Your task to perform on an android device: What's the news in Indonesia? Image 0: 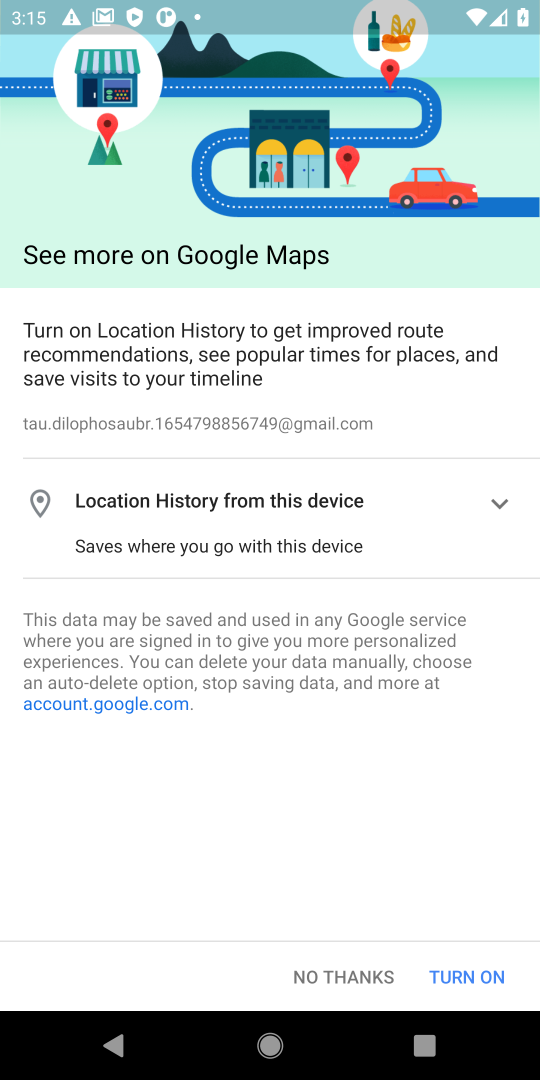
Step 0: press home button
Your task to perform on an android device: What's the news in Indonesia? Image 1: 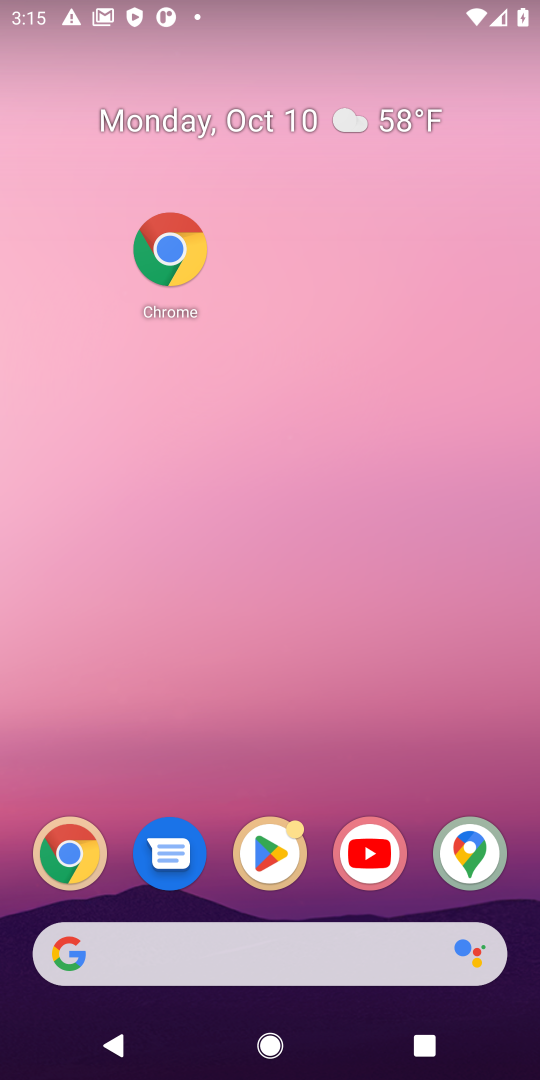
Step 1: click (164, 252)
Your task to perform on an android device: What's the news in Indonesia? Image 2: 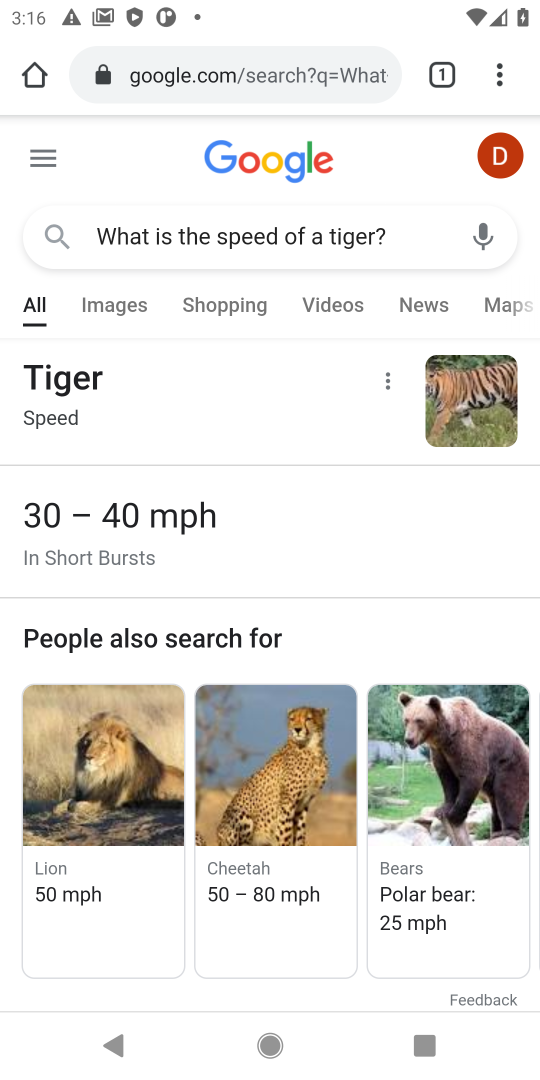
Step 2: click (279, 78)
Your task to perform on an android device: What's the news in Indonesia? Image 3: 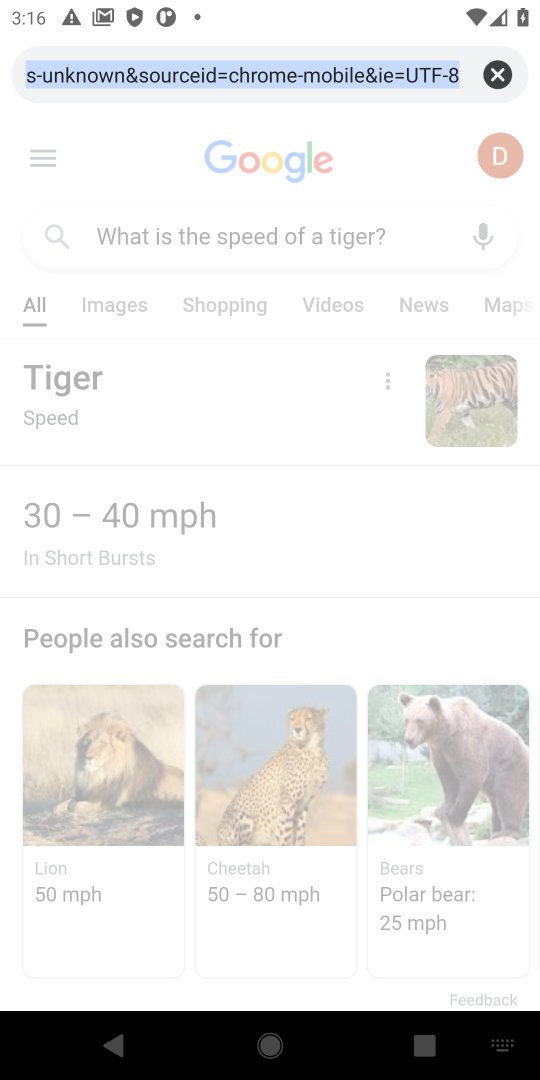
Step 3: type "What's the news in Indonesia?"
Your task to perform on an android device: What's the news in Indonesia? Image 4: 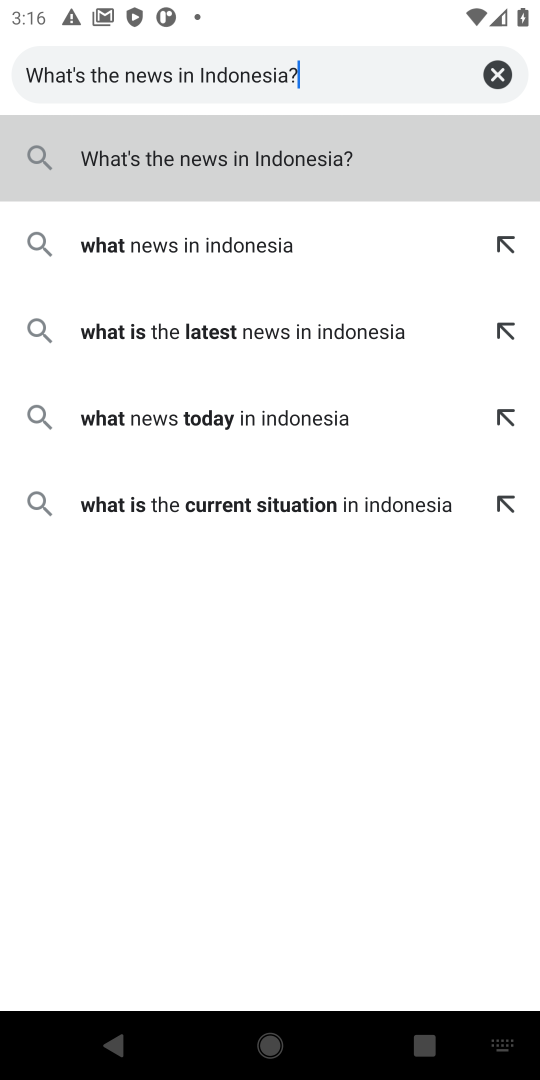
Step 4: click (389, 66)
Your task to perform on an android device: What's the news in Indonesia? Image 5: 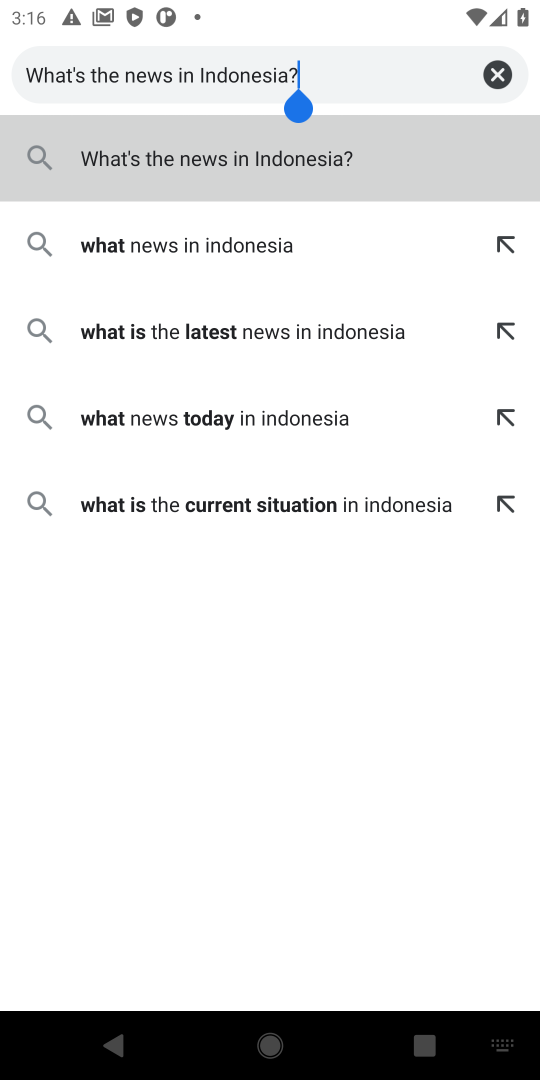
Step 5: click (326, 151)
Your task to perform on an android device: What's the news in Indonesia? Image 6: 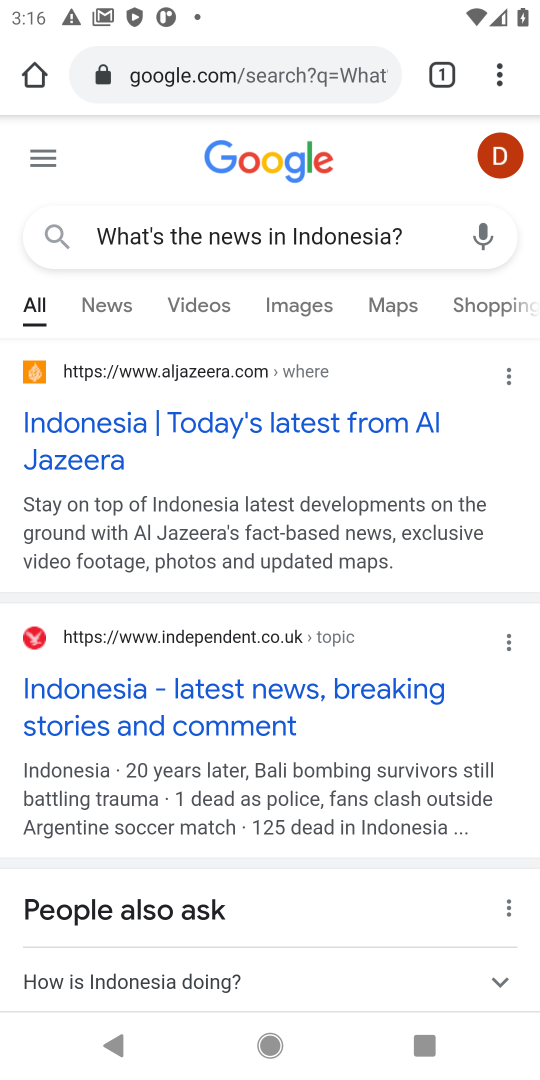
Step 6: click (271, 465)
Your task to perform on an android device: What's the news in Indonesia? Image 7: 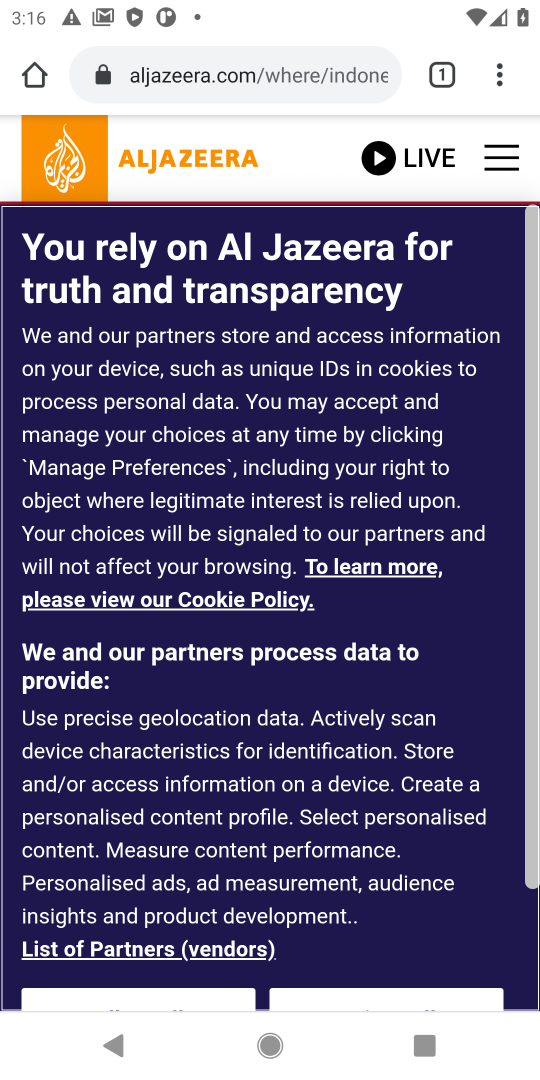
Step 7: click (291, 526)
Your task to perform on an android device: What's the news in Indonesia? Image 8: 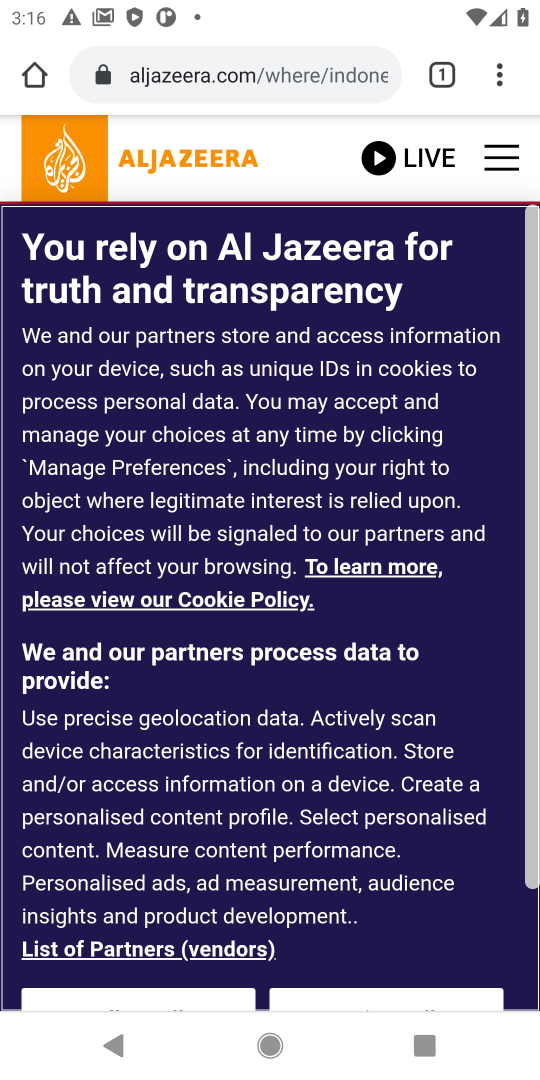
Step 8: drag from (287, 980) to (339, 583)
Your task to perform on an android device: What's the news in Indonesia? Image 9: 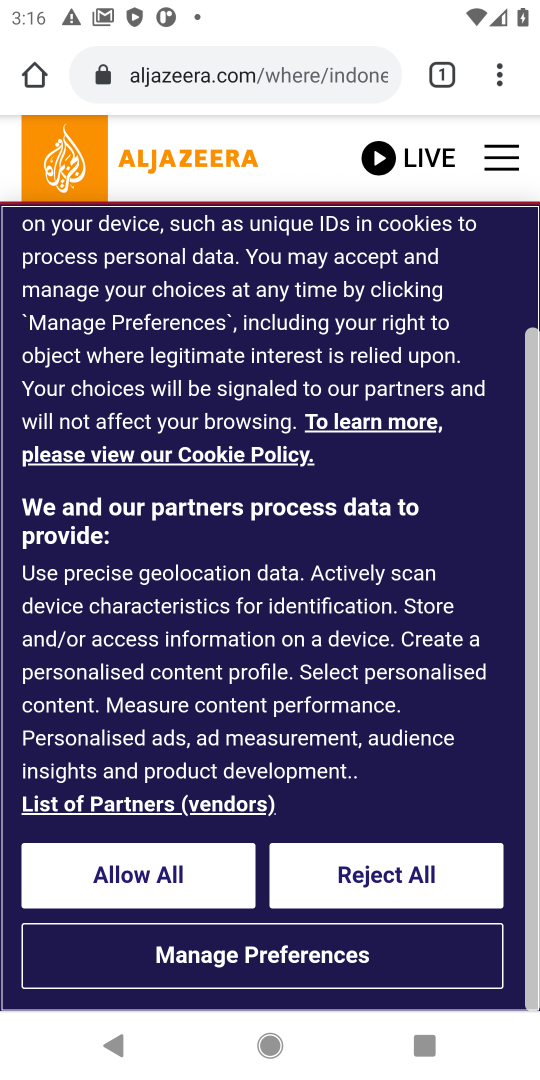
Step 9: click (162, 871)
Your task to perform on an android device: What's the news in Indonesia? Image 10: 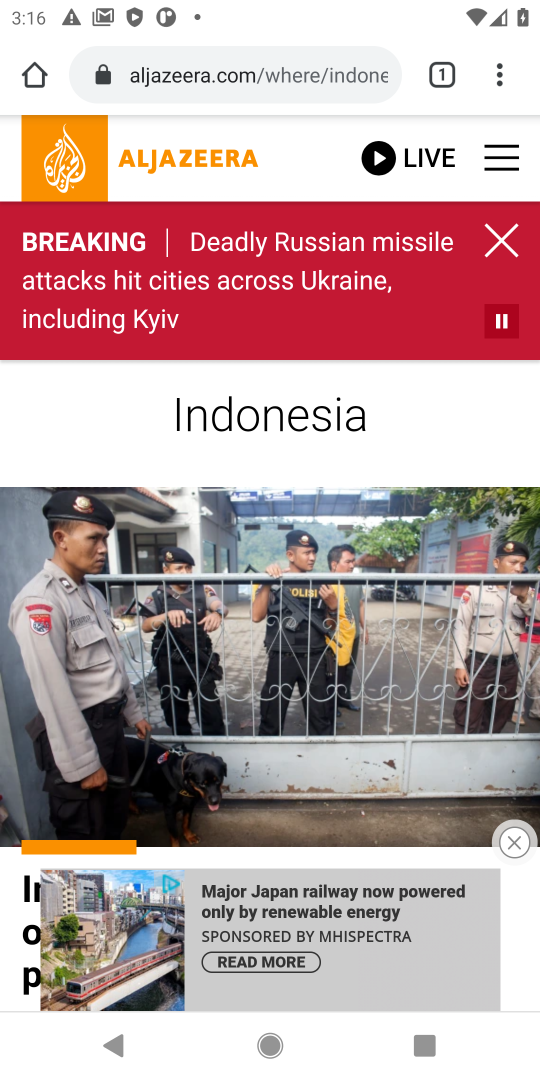
Step 10: task complete